Your task to perform on an android device: open device folders in google photos Image 0: 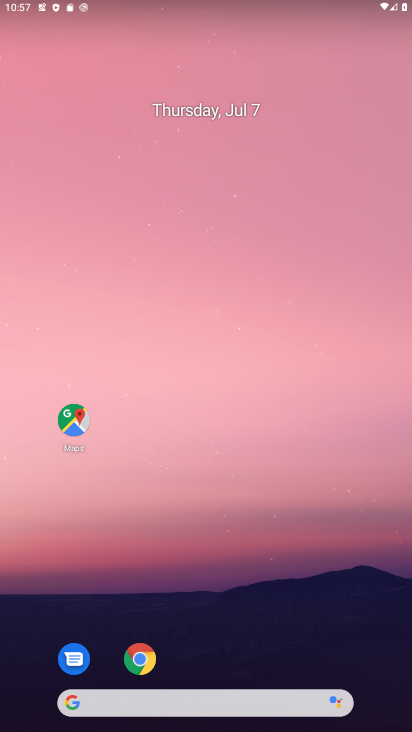
Step 0: drag from (234, 652) to (262, 44)
Your task to perform on an android device: open device folders in google photos Image 1: 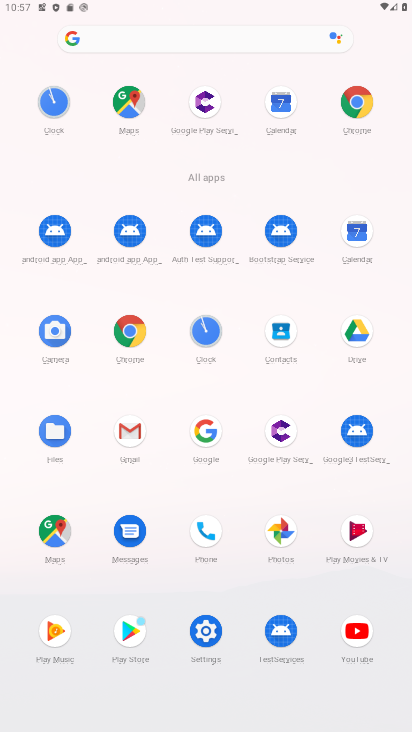
Step 1: click (278, 524)
Your task to perform on an android device: open device folders in google photos Image 2: 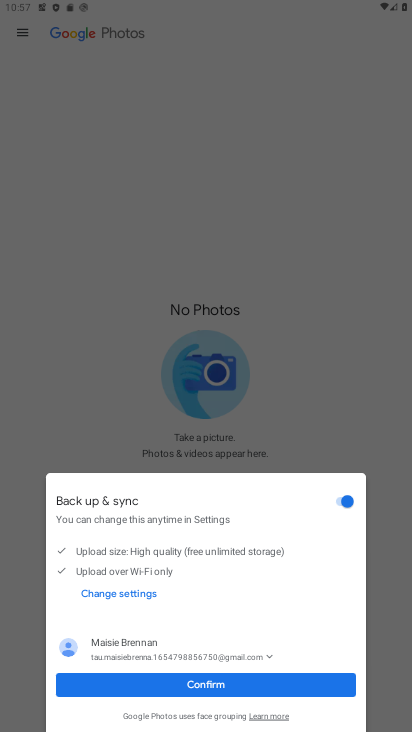
Step 2: click (213, 680)
Your task to perform on an android device: open device folders in google photos Image 3: 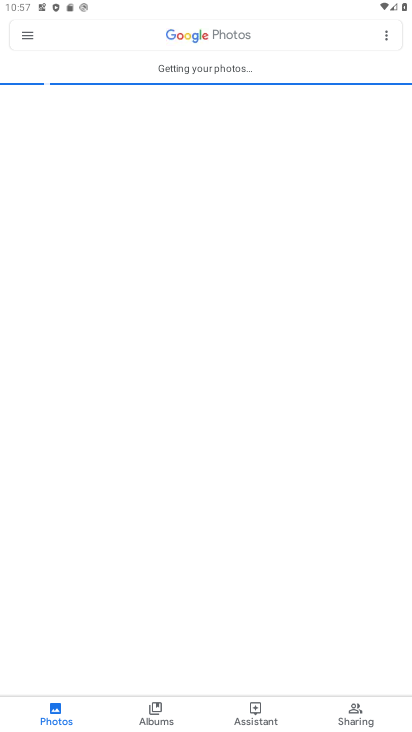
Step 3: click (26, 31)
Your task to perform on an android device: open device folders in google photos Image 4: 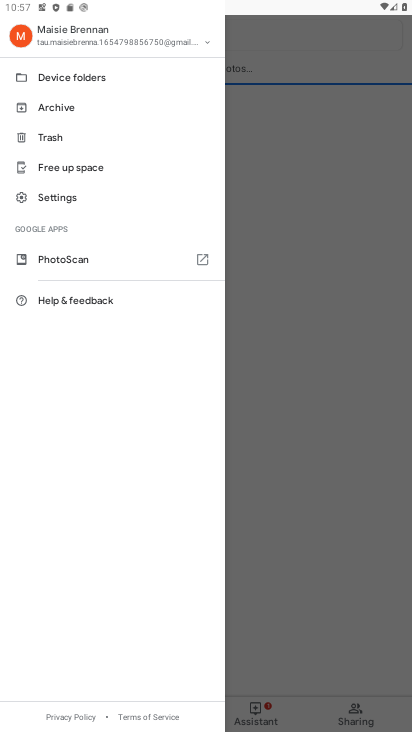
Step 4: click (68, 80)
Your task to perform on an android device: open device folders in google photos Image 5: 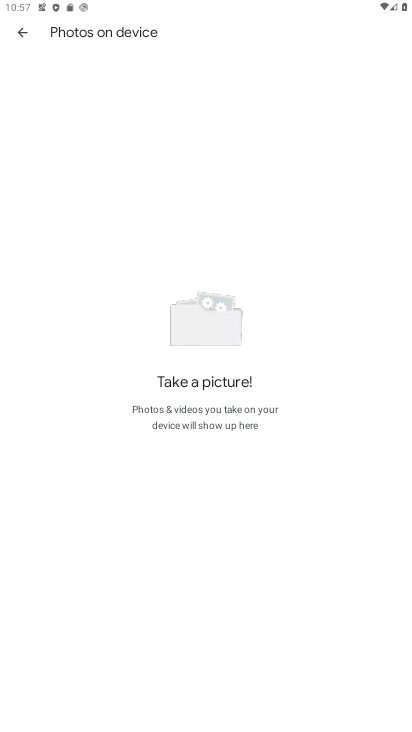
Step 5: task complete